Your task to perform on an android device: add a contact Image 0: 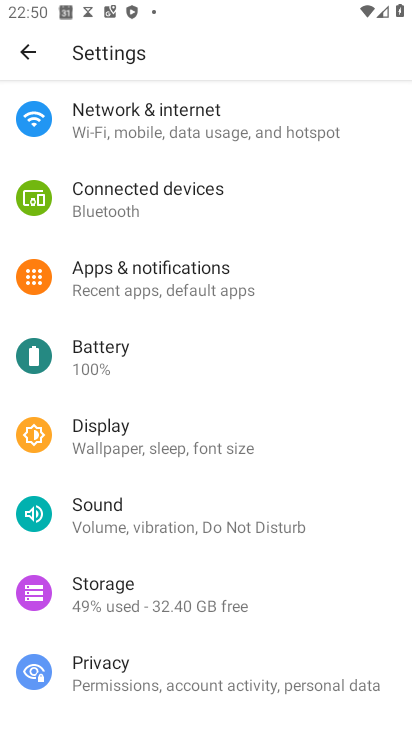
Step 0: press home button
Your task to perform on an android device: add a contact Image 1: 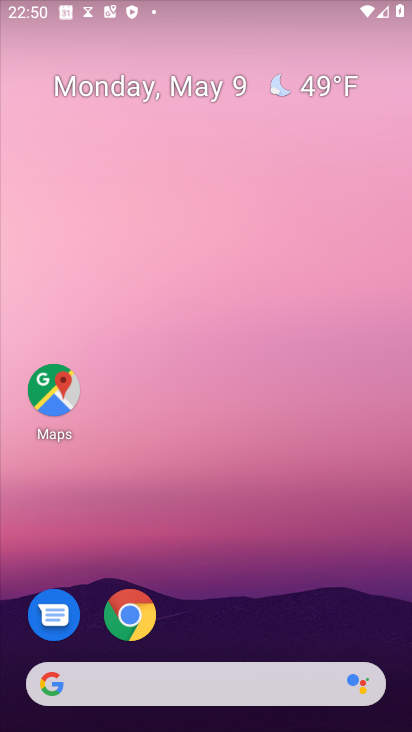
Step 1: drag from (306, 588) to (282, 100)
Your task to perform on an android device: add a contact Image 2: 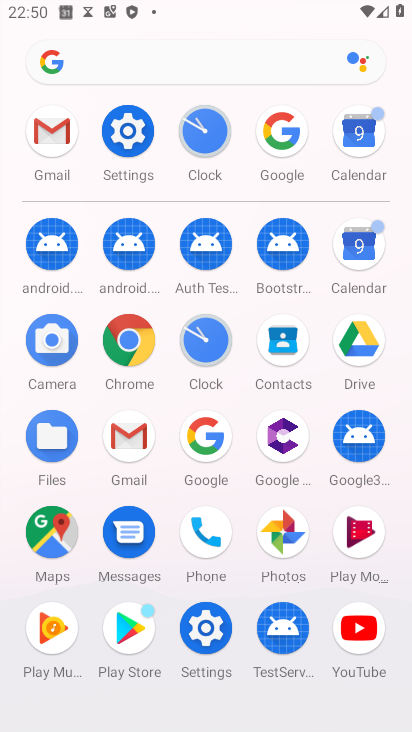
Step 2: click (275, 361)
Your task to perform on an android device: add a contact Image 3: 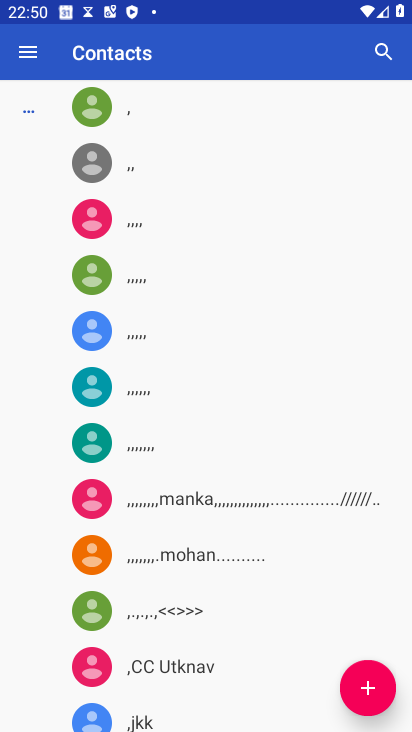
Step 3: click (366, 679)
Your task to perform on an android device: add a contact Image 4: 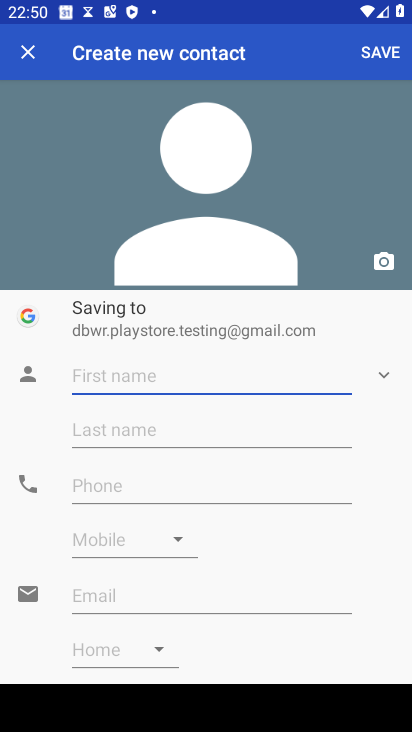
Step 4: click (149, 376)
Your task to perform on an android device: add a contact Image 5: 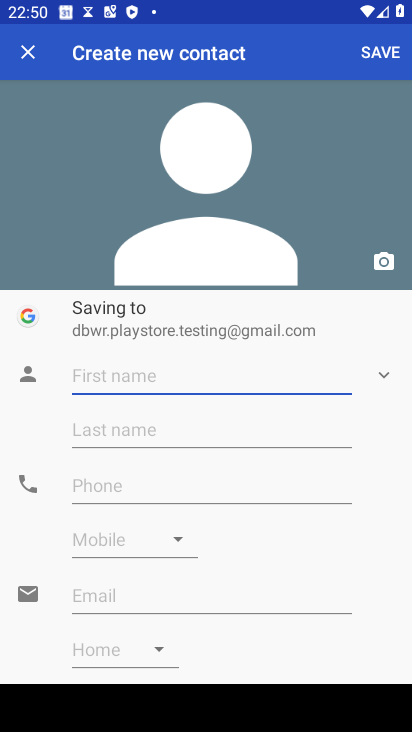
Step 5: type "contact 32"
Your task to perform on an android device: add a contact Image 6: 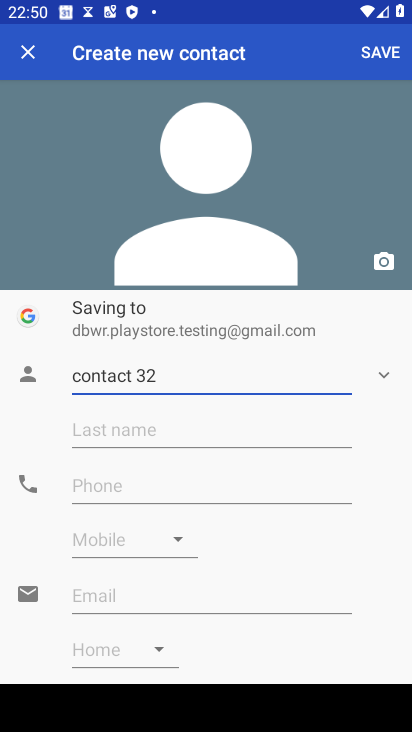
Step 6: click (163, 487)
Your task to perform on an android device: add a contact Image 7: 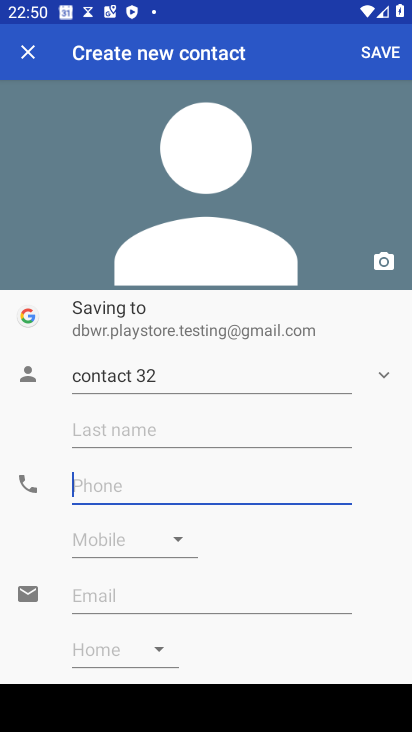
Step 7: type "76676555876"
Your task to perform on an android device: add a contact Image 8: 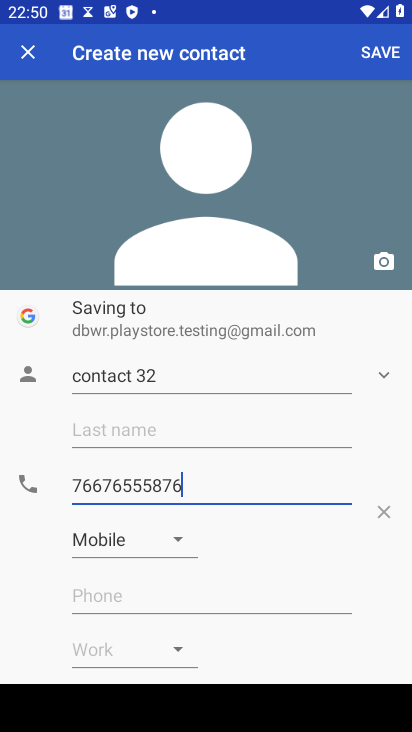
Step 8: click (383, 71)
Your task to perform on an android device: add a contact Image 9: 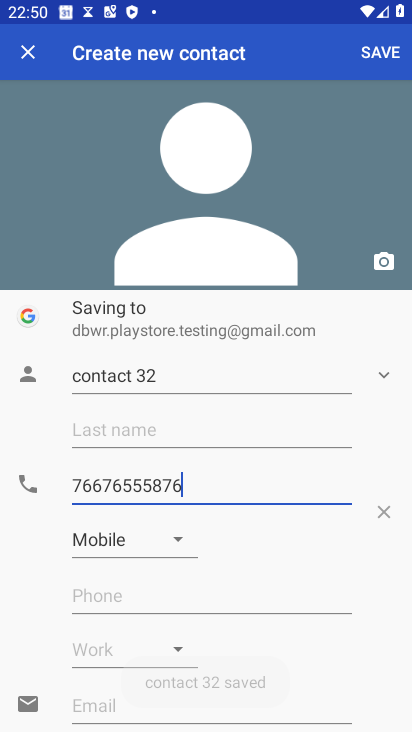
Step 9: click (383, 62)
Your task to perform on an android device: add a contact Image 10: 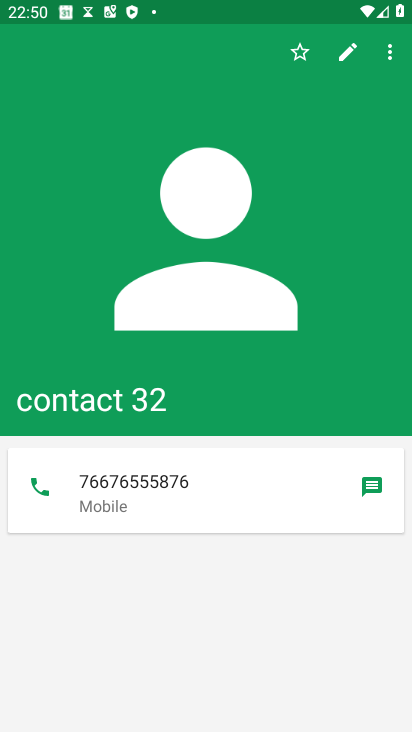
Step 10: task complete